Your task to perform on an android device: Open Wikipedia Image 0: 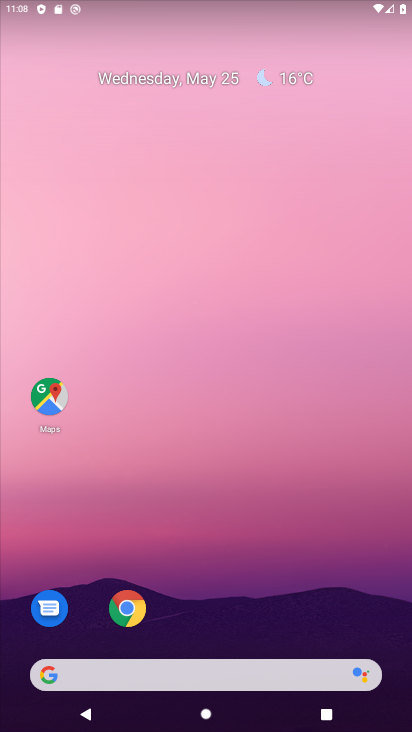
Step 0: click (131, 611)
Your task to perform on an android device: Open Wikipedia Image 1: 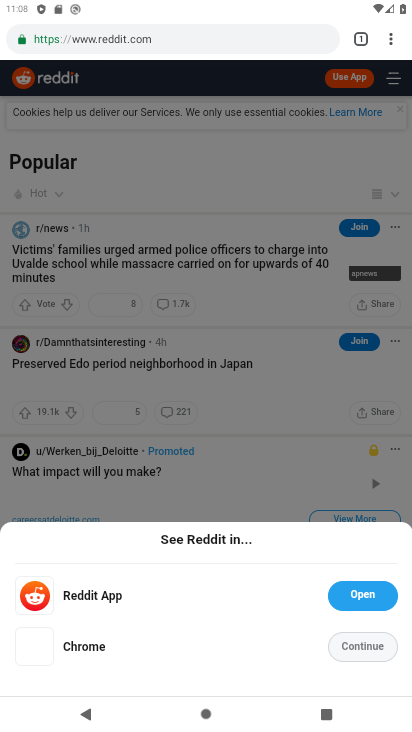
Step 1: click (356, 39)
Your task to perform on an android device: Open Wikipedia Image 2: 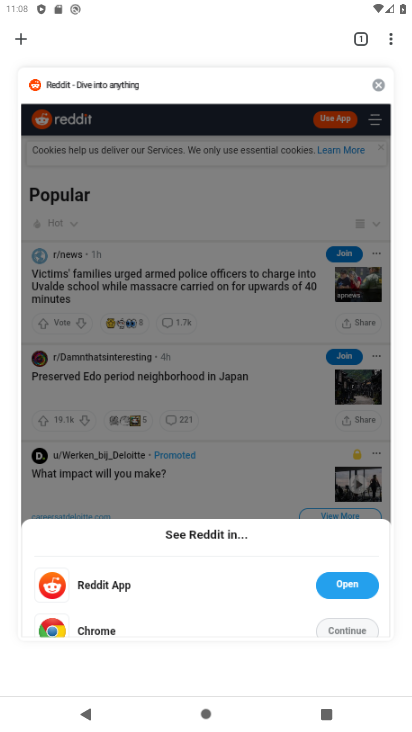
Step 2: click (12, 32)
Your task to perform on an android device: Open Wikipedia Image 3: 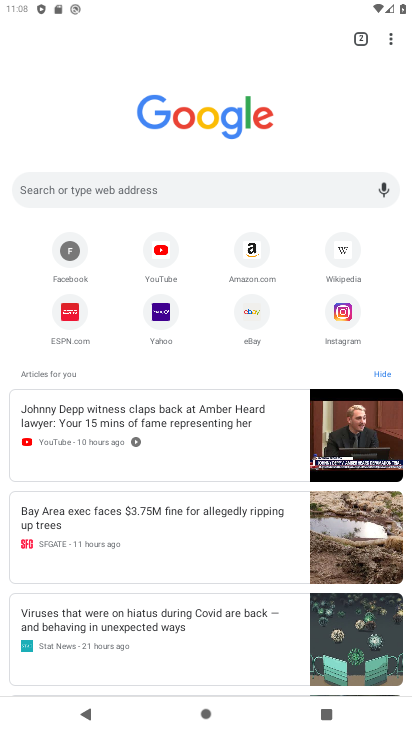
Step 3: click (332, 251)
Your task to perform on an android device: Open Wikipedia Image 4: 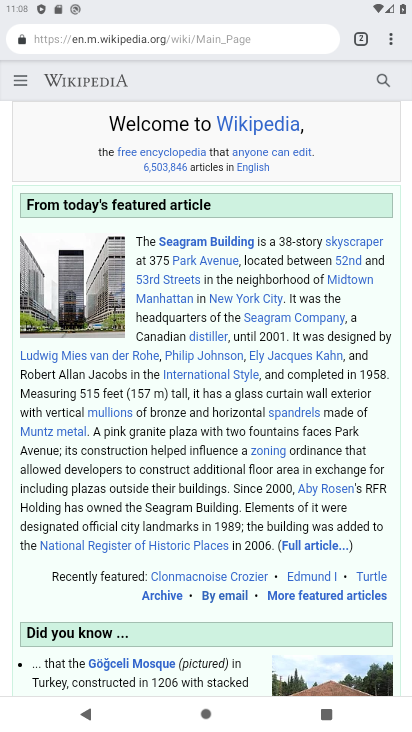
Step 4: task complete